Your task to perform on an android device: What's the latest news in planetary science? Image 0: 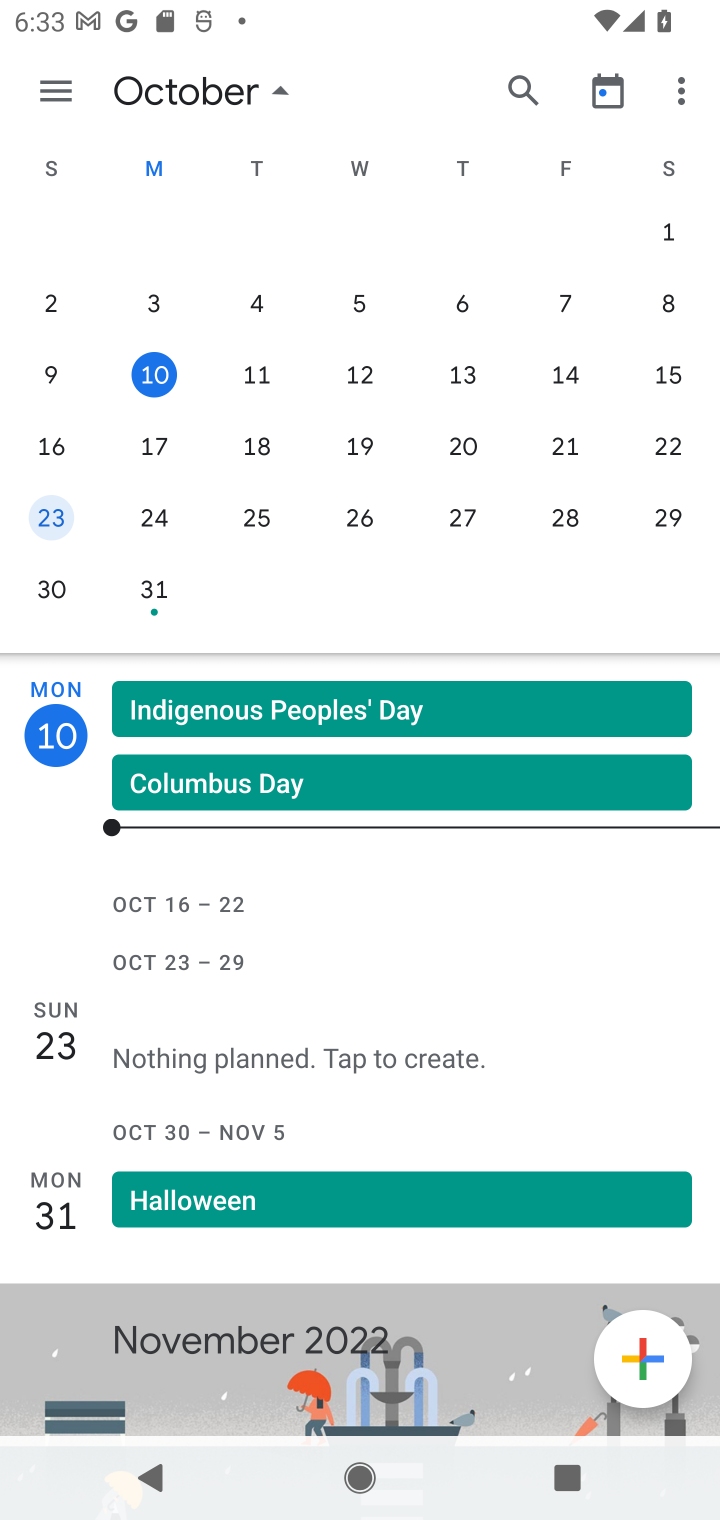
Step 0: press home button
Your task to perform on an android device: What's the latest news in planetary science? Image 1: 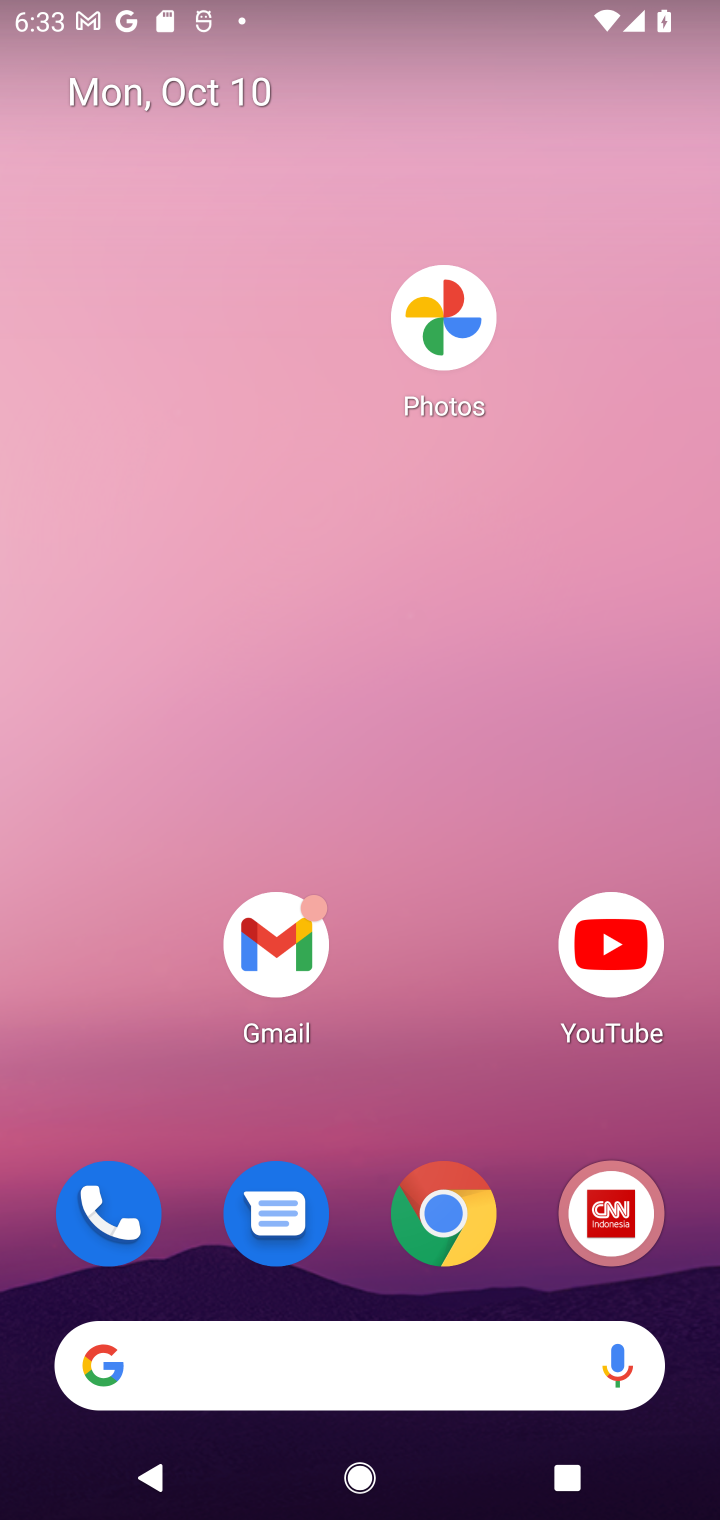
Step 1: click (368, 1357)
Your task to perform on an android device: What's the latest news in planetary science? Image 2: 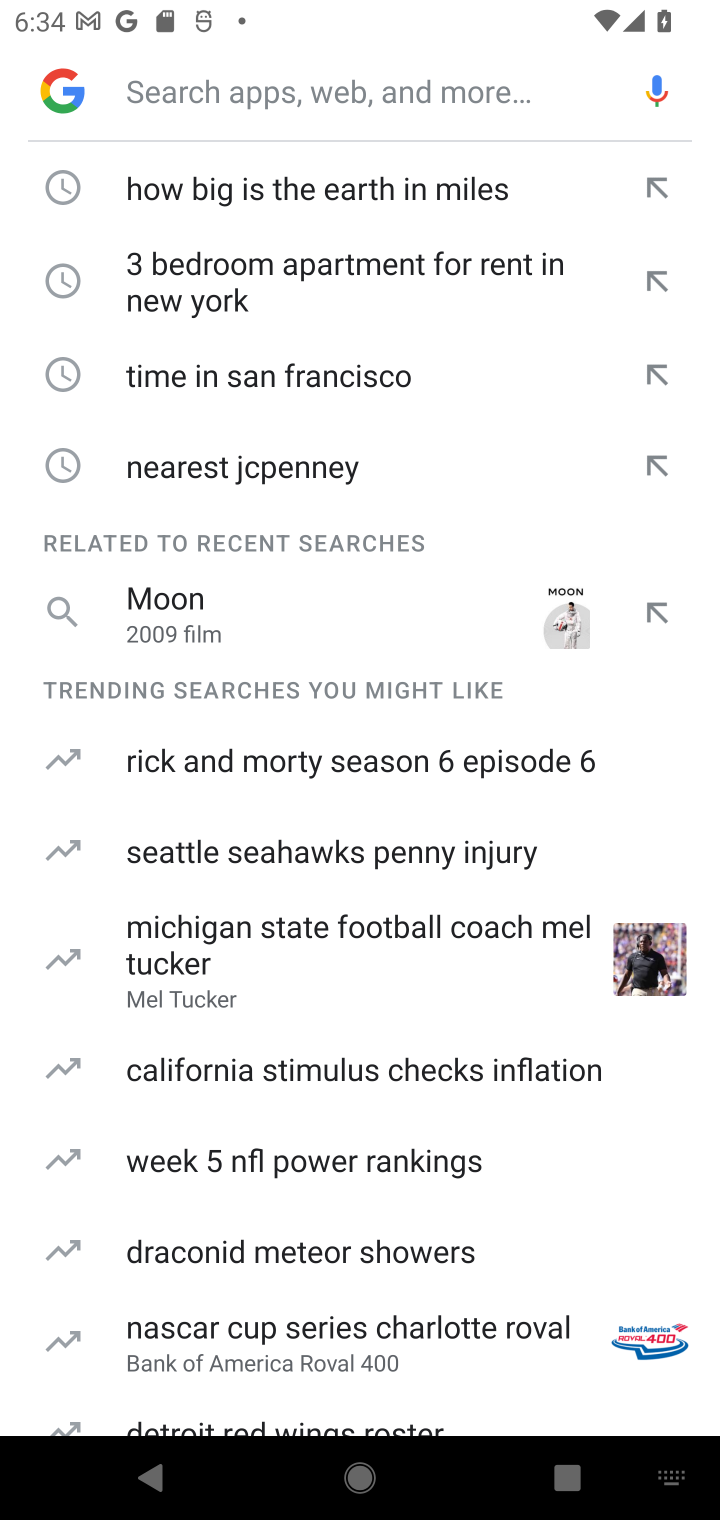
Step 2: type "latest news in planetary science"
Your task to perform on an android device: What's the latest news in planetary science? Image 3: 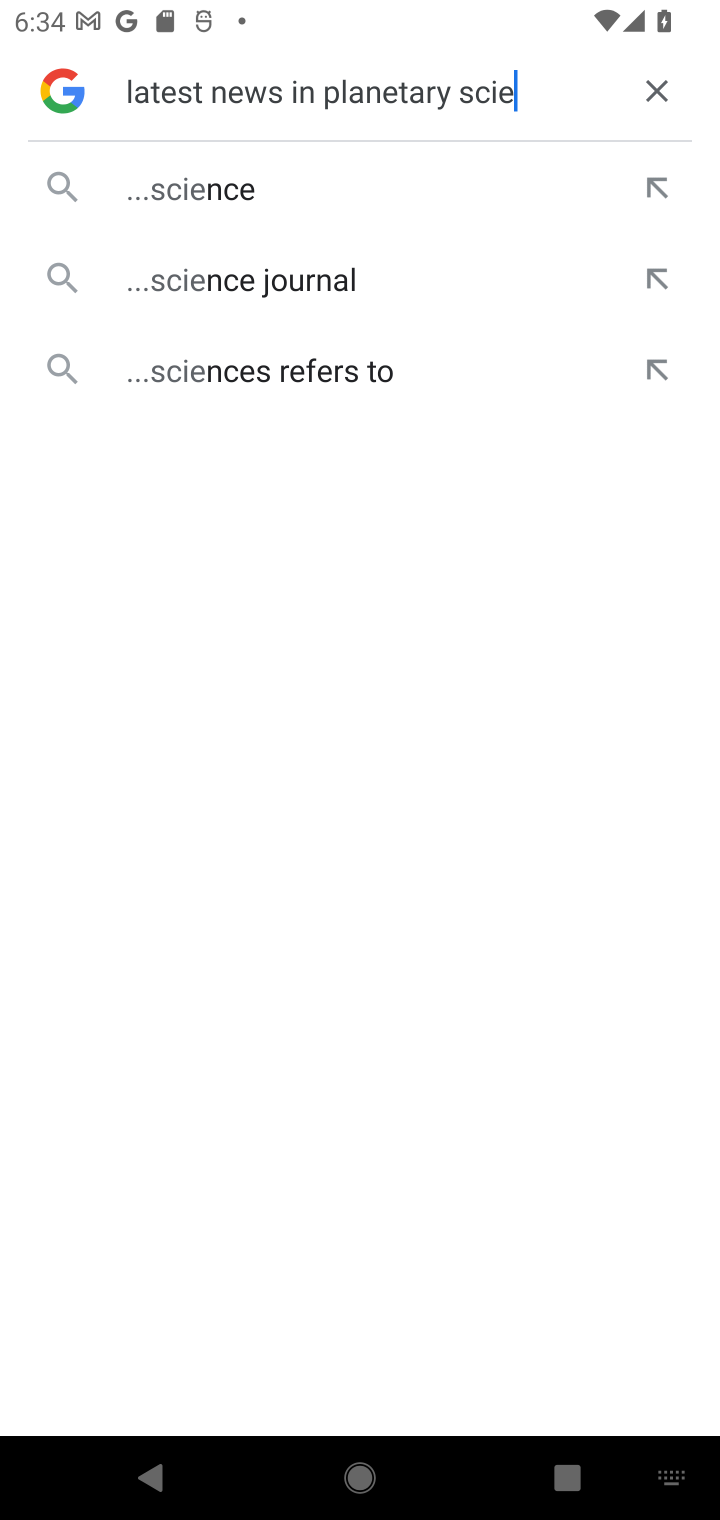
Step 3: type ""
Your task to perform on an android device: What's the latest news in planetary science? Image 4: 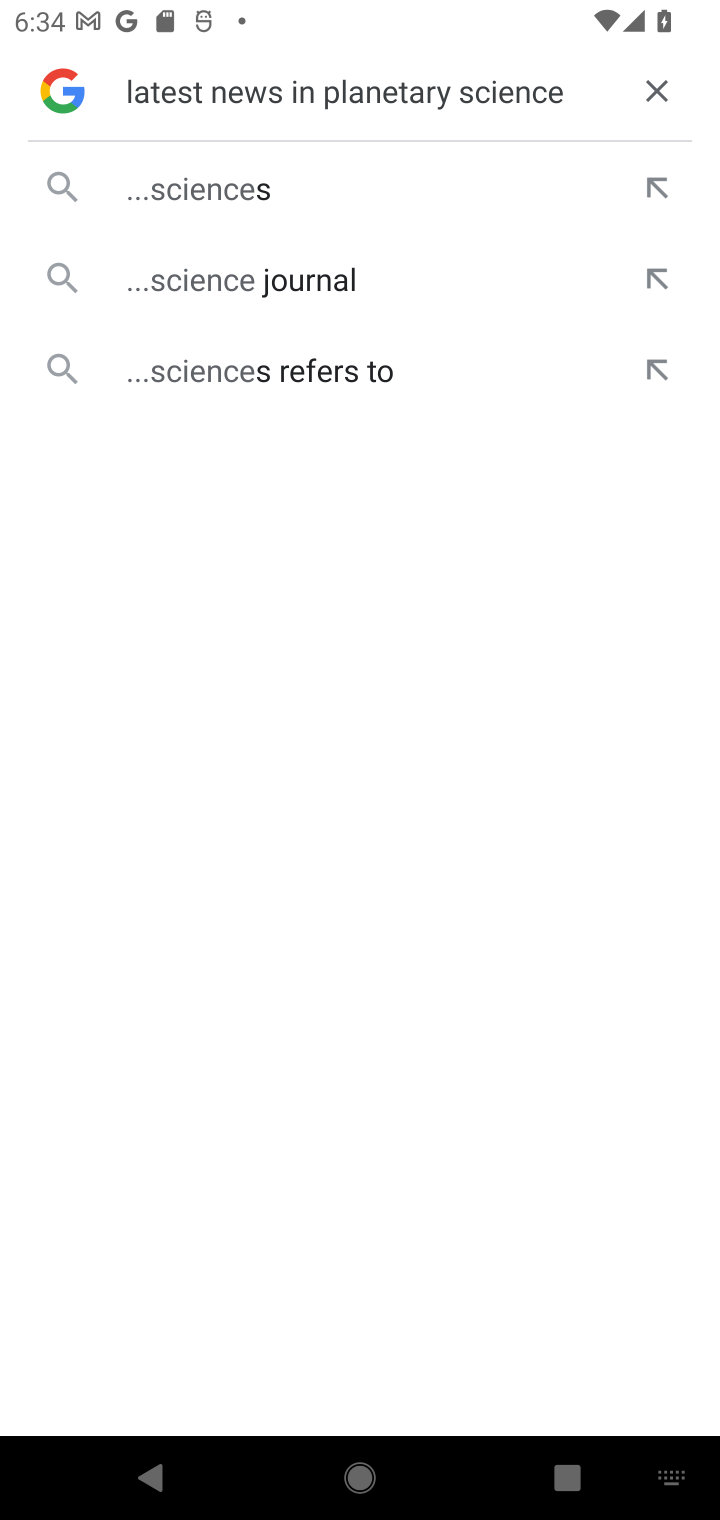
Step 4: click (265, 183)
Your task to perform on an android device: What's the latest news in planetary science? Image 5: 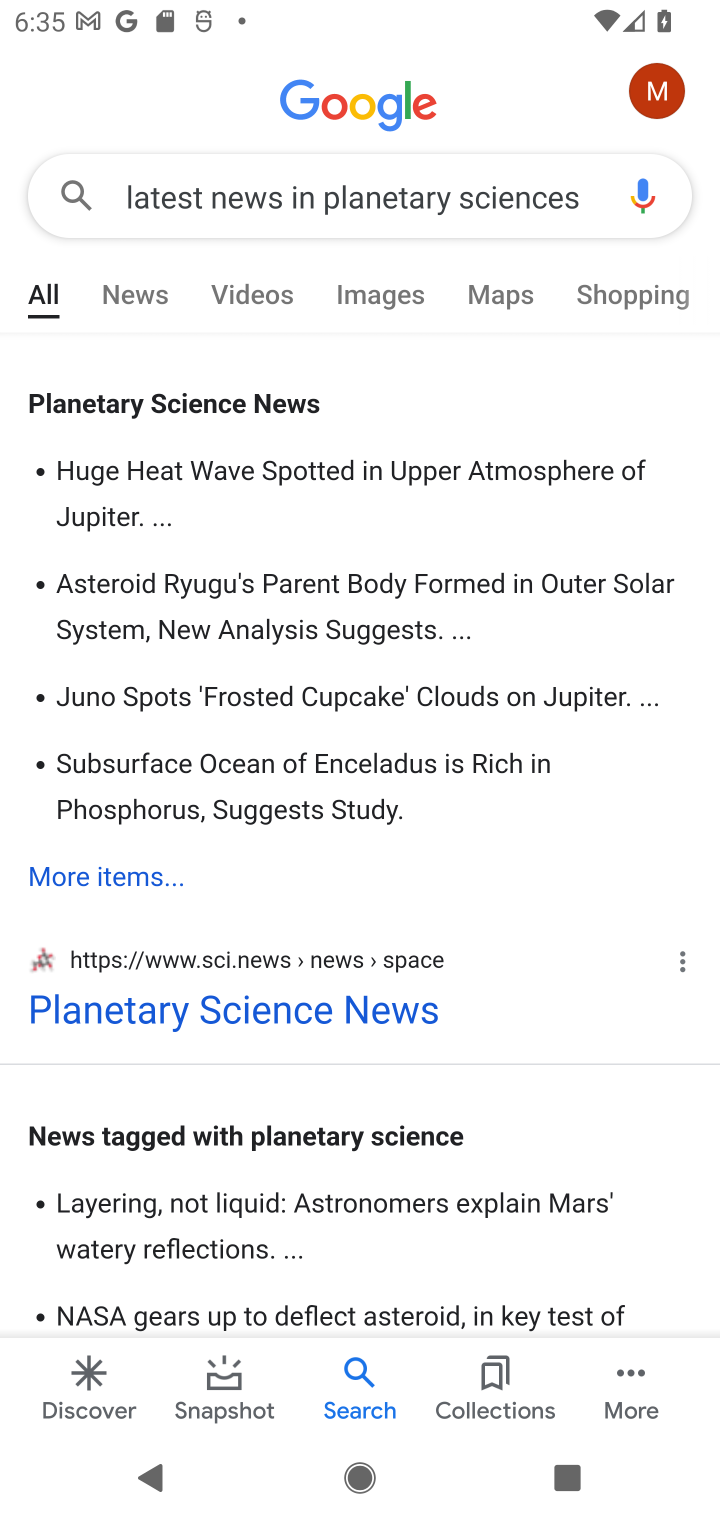
Step 5: task complete